Your task to perform on an android device: turn on showing notifications on the lock screen Image 0: 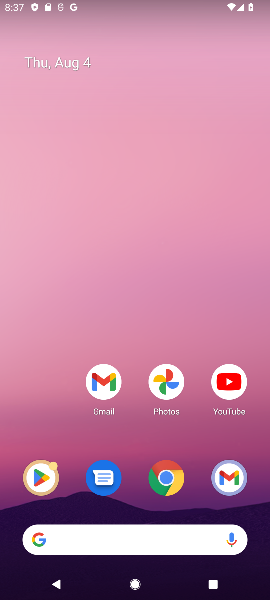
Step 0: press home button
Your task to perform on an android device: turn on showing notifications on the lock screen Image 1: 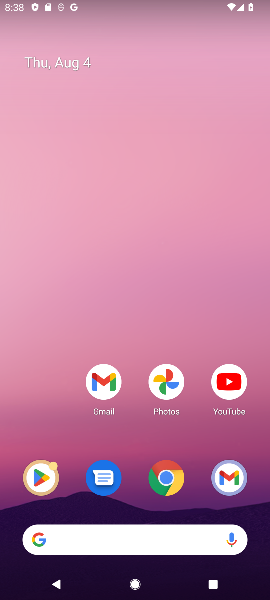
Step 1: drag from (145, 528) to (162, 80)
Your task to perform on an android device: turn on showing notifications on the lock screen Image 2: 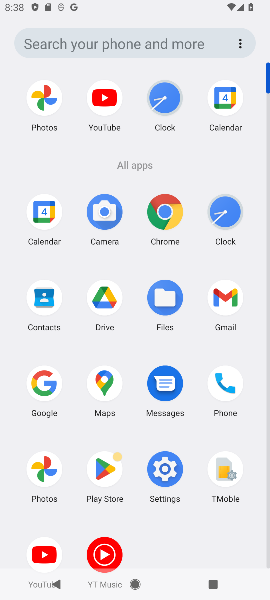
Step 2: click (161, 489)
Your task to perform on an android device: turn on showing notifications on the lock screen Image 3: 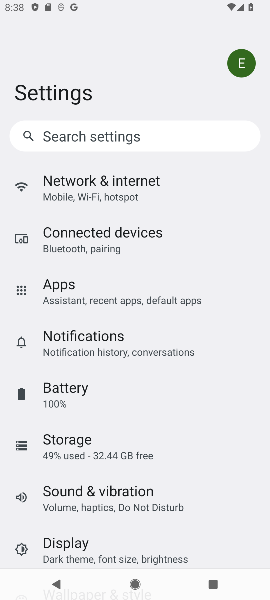
Step 3: click (85, 337)
Your task to perform on an android device: turn on showing notifications on the lock screen Image 4: 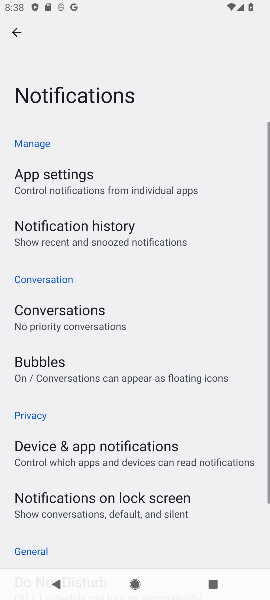
Step 4: drag from (133, 551) to (172, 252)
Your task to perform on an android device: turn on showing notifications on the lock screen Image 5: 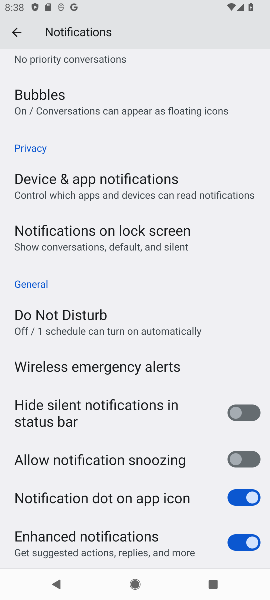
Step 5: click (126, 250)
Your task to perform on an android device: turn on showing notifications on the lock screen Image 6: 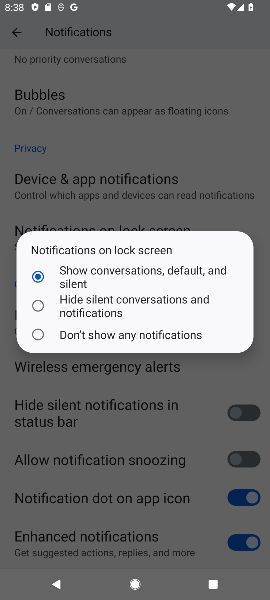
Step 6: click (106, 274)
Your task to perform on an android device: turn on showing notifications on the lock screen Image 7: 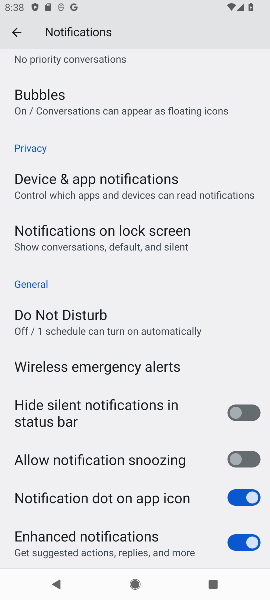
Step 7: task complete